Your task to perform on an android device: open app "Life360: Find Family & Friends" (install if not already installed) Image 0: 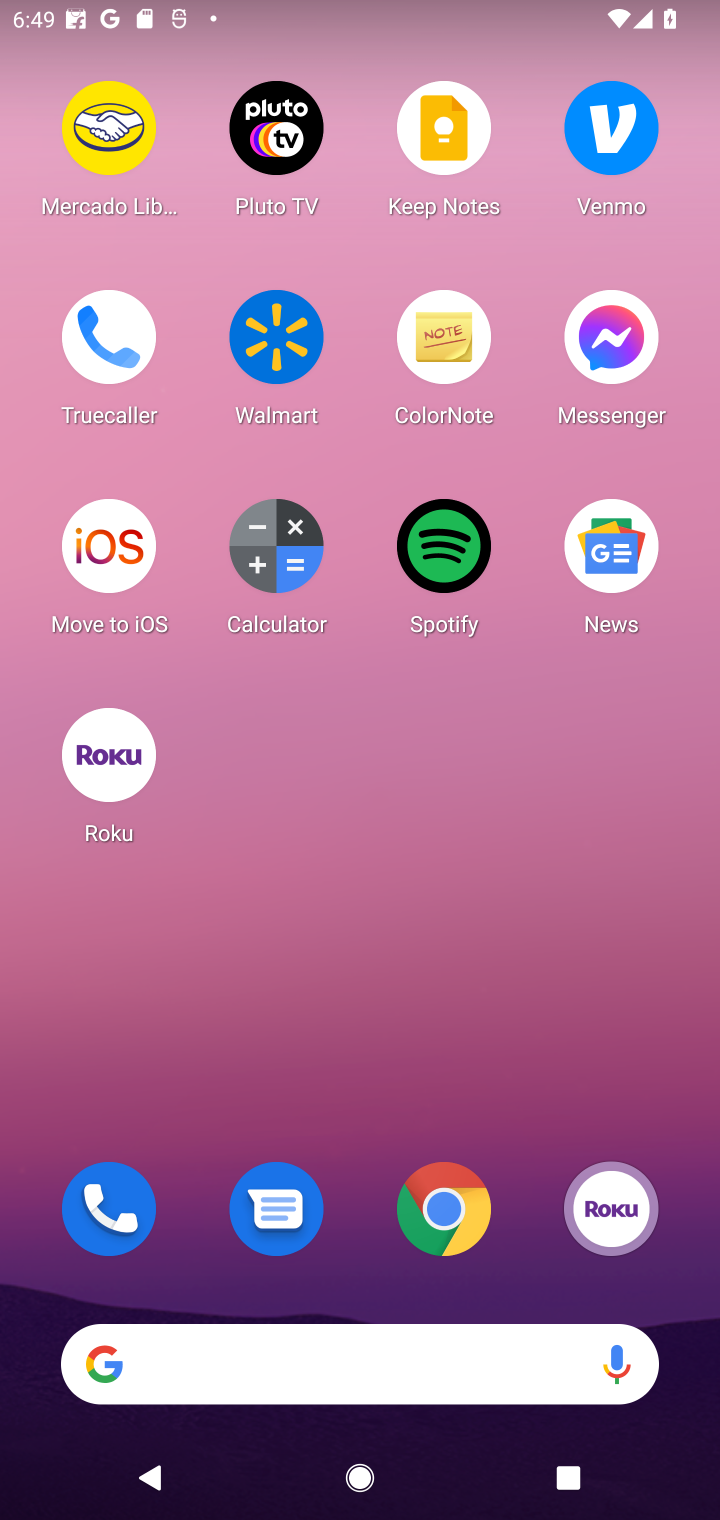
Step 0: drag from (537, 1273) to (554, 156)
Your task to perform on an android device: open app "Life360: Find Family & Friends" (install if not already installed) Image 1: 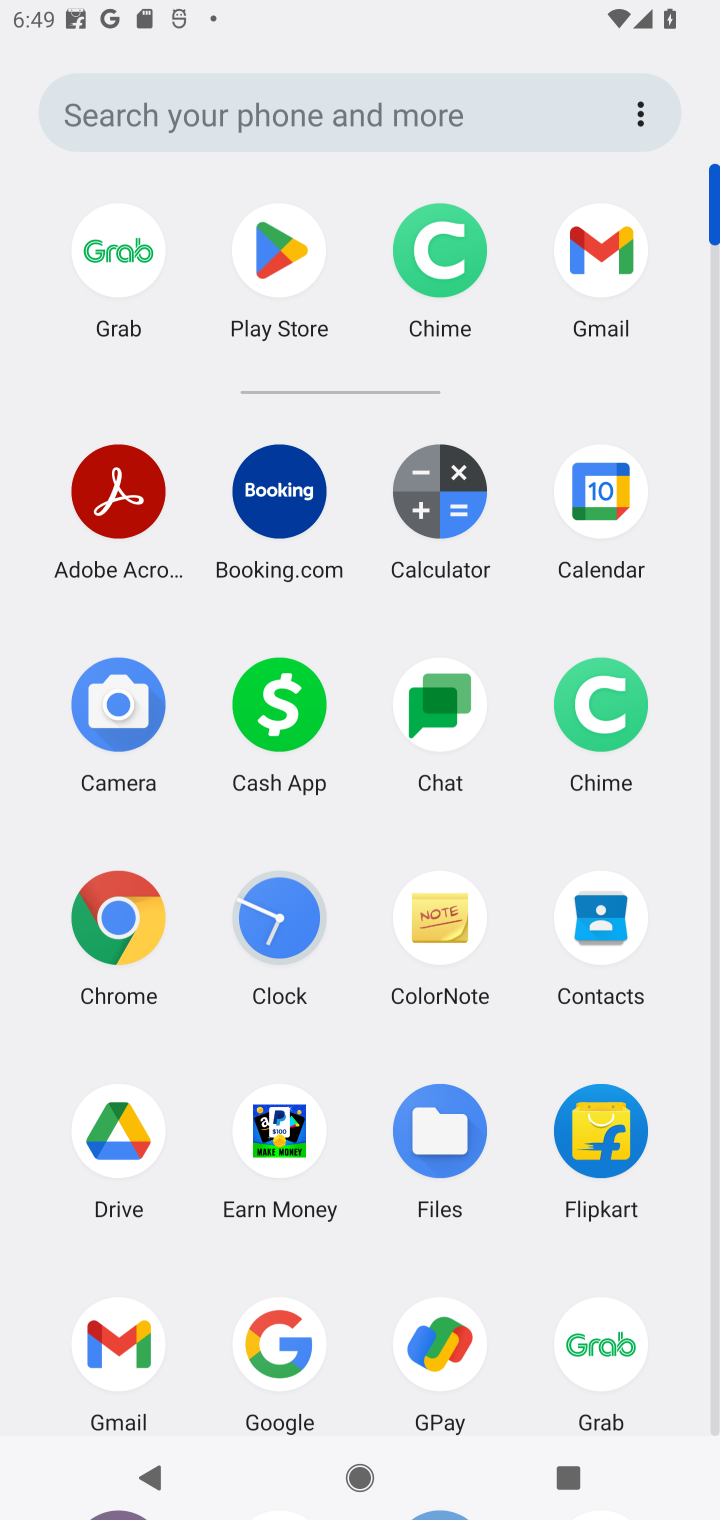
Step 1: click (288, 282)
Your task to perform on an android device: open app "Life360: Find Family & Friends" (install if not already installed) Image 2: 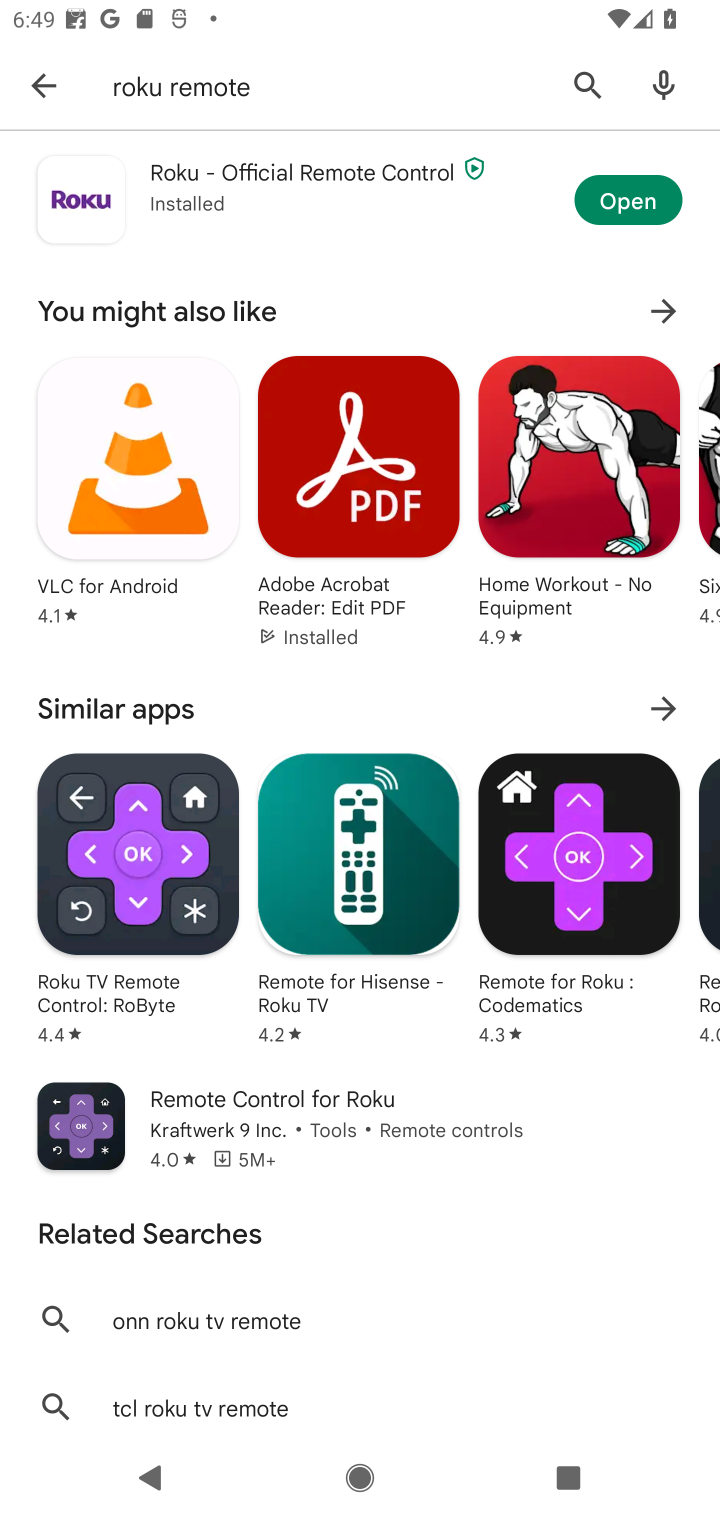
Step 2: click (590, 82)
Your task to perform on an android device: open app "Life360: Find Family & Friends" (install if not already installed) Image 3: 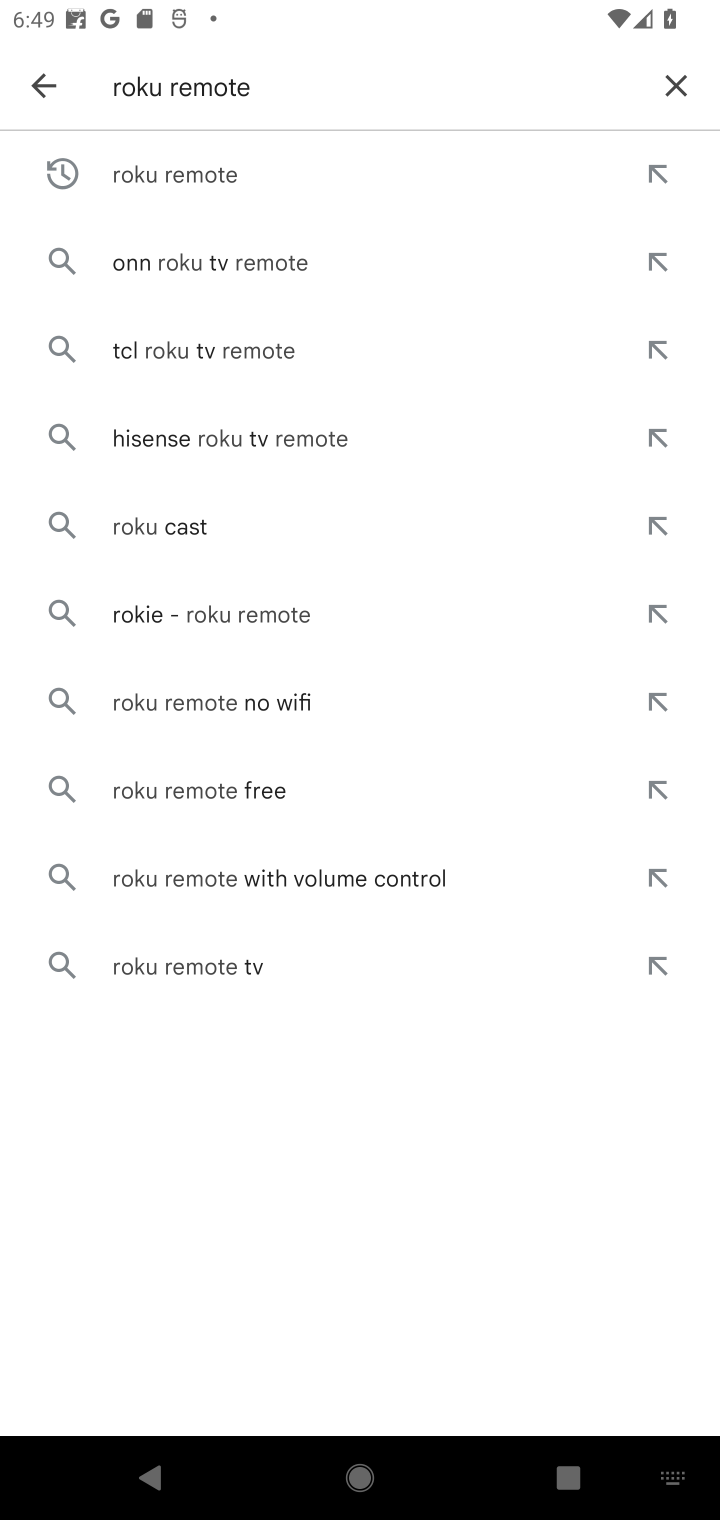
Step 3: click (679, 81)
Your task to perform on an android device: open app "Life360: Find Family & Friends" (install if not already installed) Image 4: 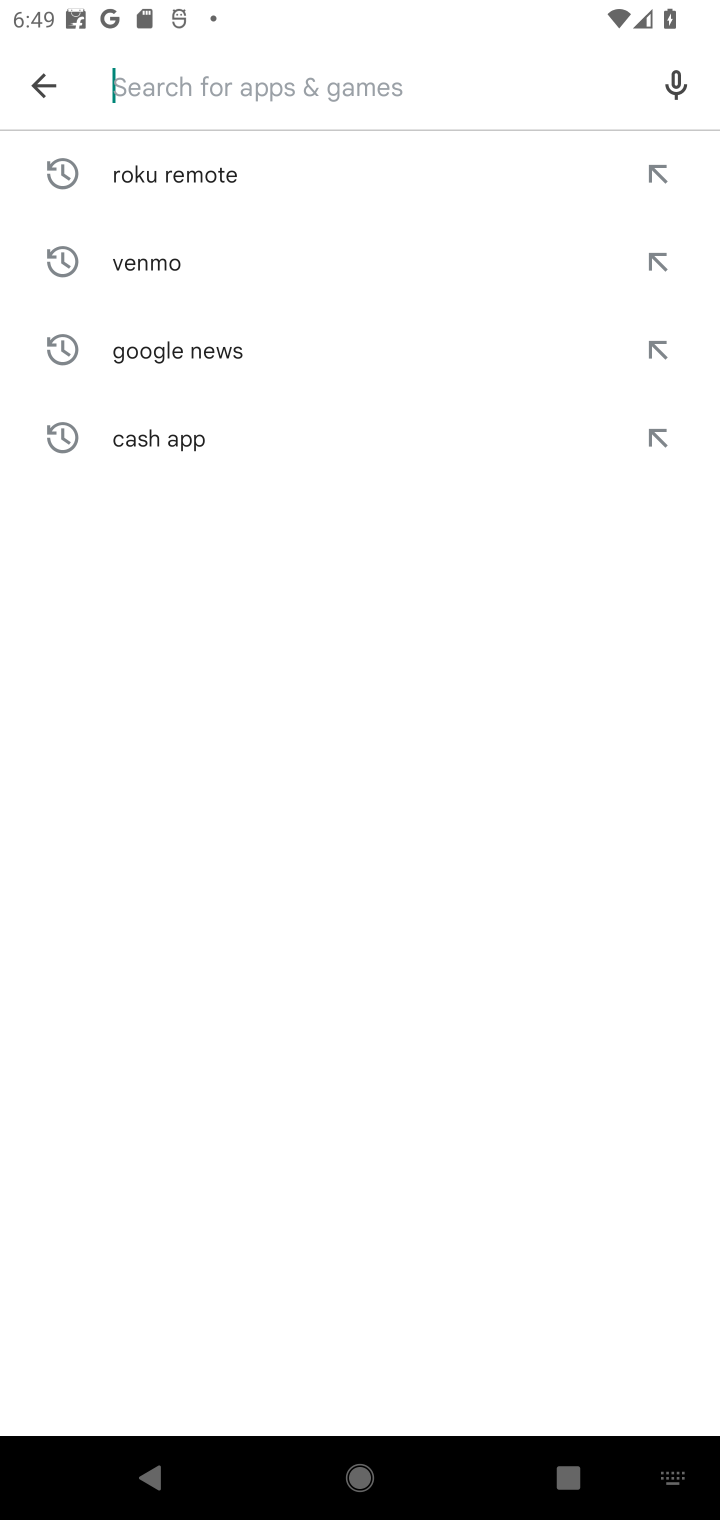
Step 4: type "life 360"
Your task to perform on an android device: open app "Life360: Find Family & Friends" (install if not already installed) Image 5: 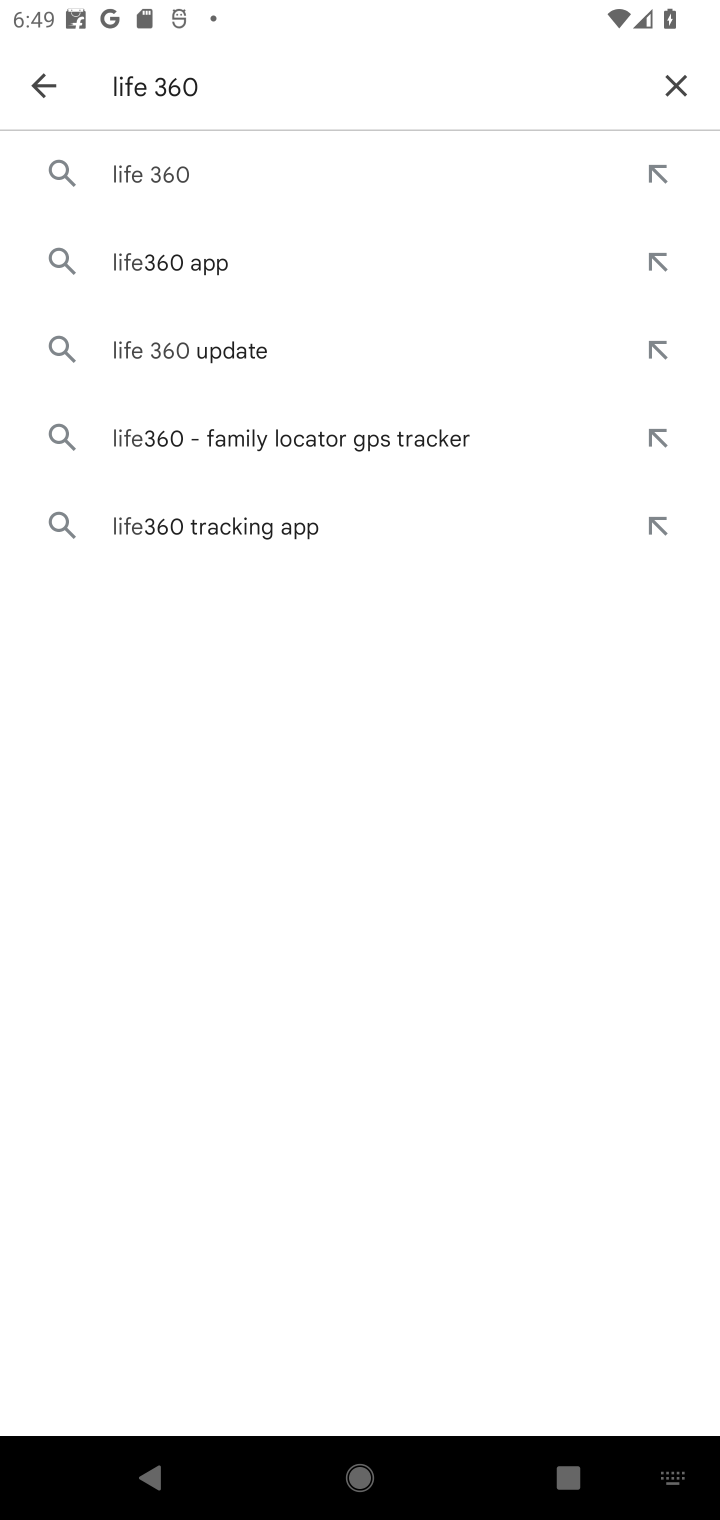
Step 5: click (220, 187)
Your task to perform on an android device: open app "Life360: Find Family & Friends" (install if not already installed) Image 6: 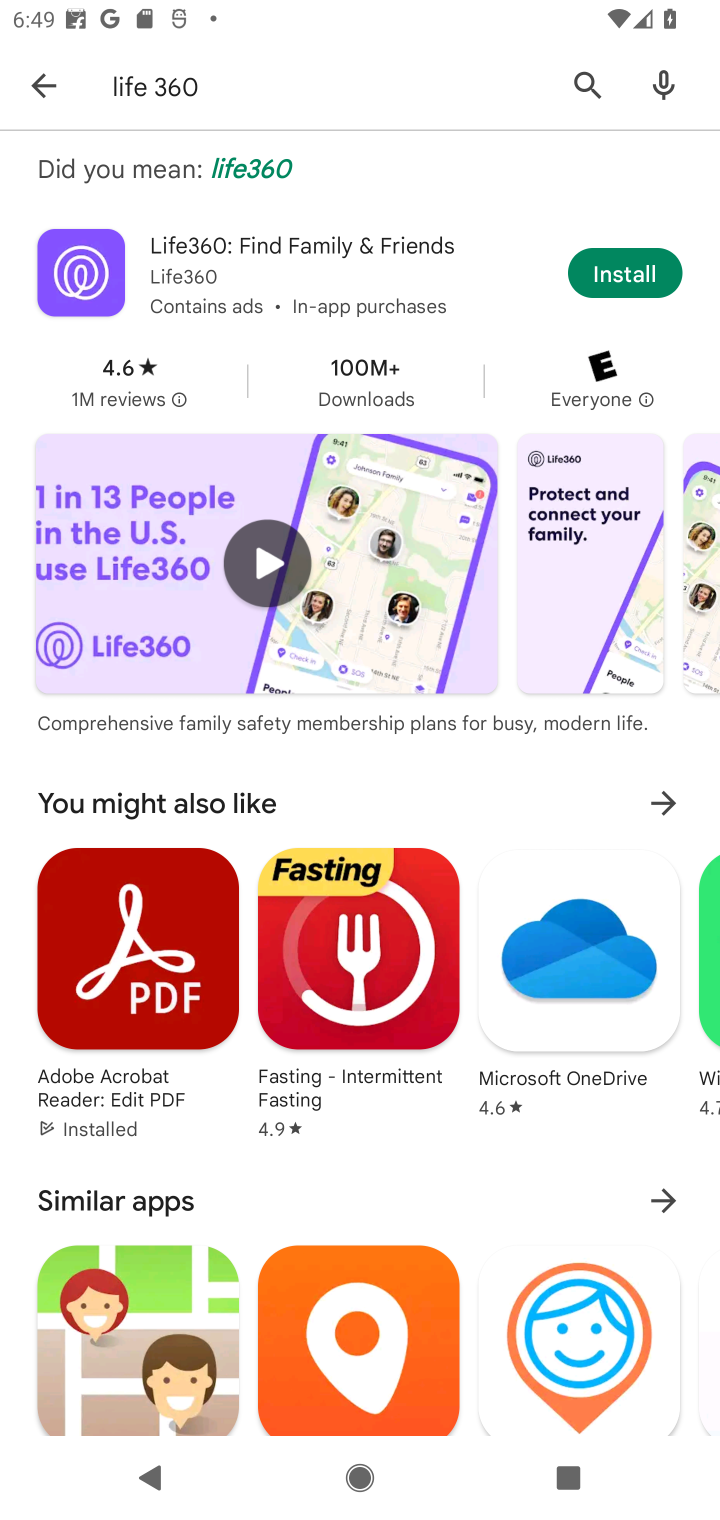
Step 6: click (609, 236)
Your task to perform on an android device: open app "Life360: Find Family & Friends" (install if not already installed) Image 7: 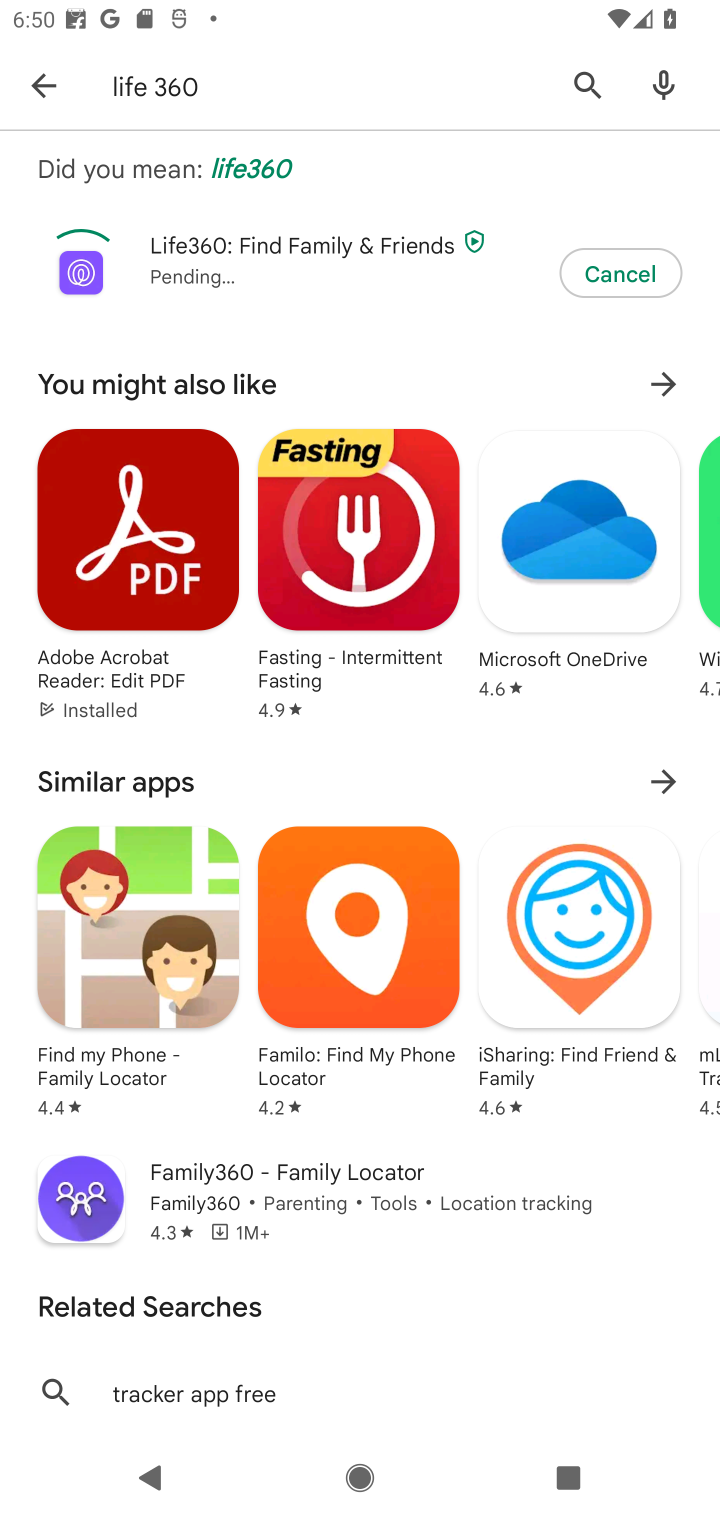
Step 7: task complete